Your task to perform on an android device: turn on improve location accuracy Image 0: 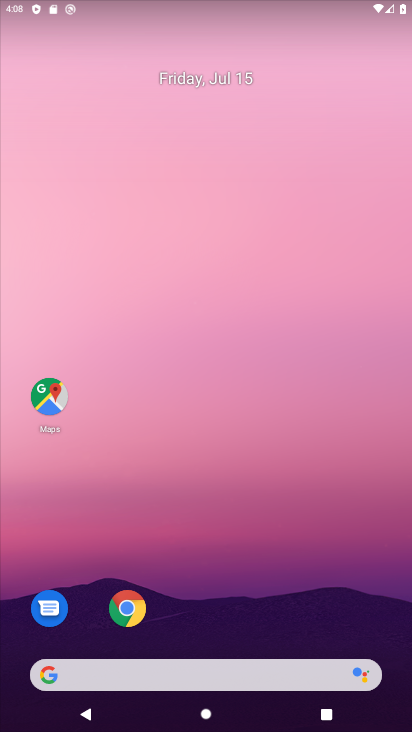
Step 0: drag from (250, 428) to (299, 177)
Your task to perform on an android device: turn on improve location accuracy Image 1: 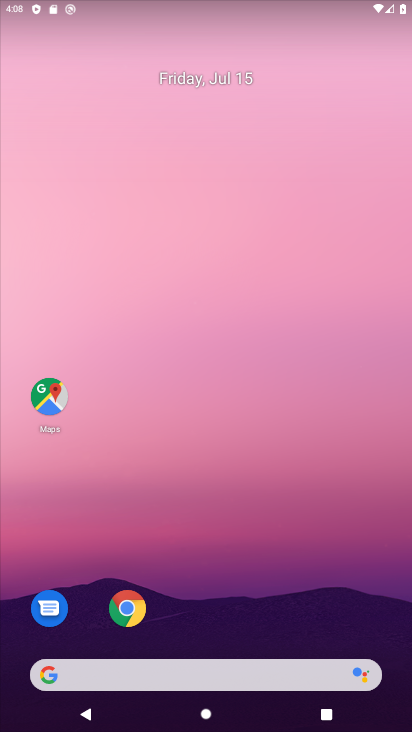
Step 1: drag from (190, 393) to (211, 267)
Your task to perform on an android device: turn on improve location accuracy Image 2: 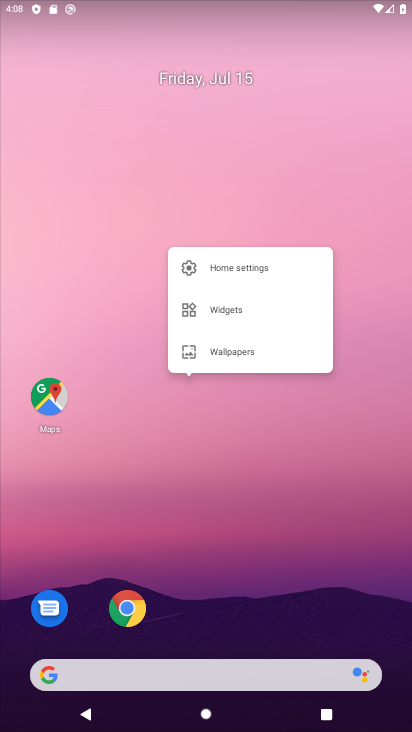
Step 2: drag from (279, 128) to (277, 10)
Your task to perform on an android device: turn on improve location accuracy Image 3: 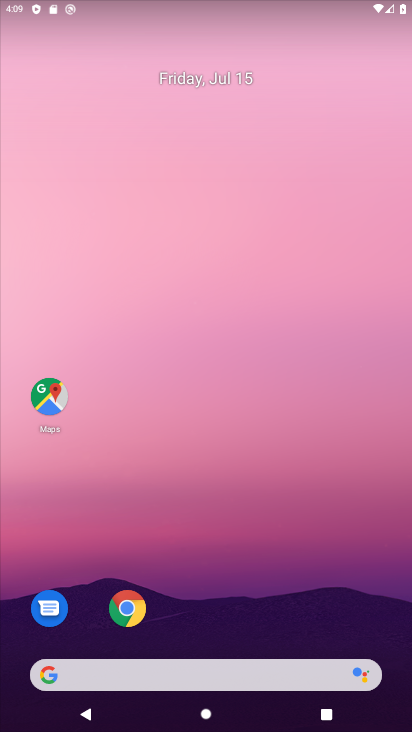
Step 3: drag from (235, 647) to (145, 1)
Your task to perform on an android device: turn on improve location accuracy Image 4: 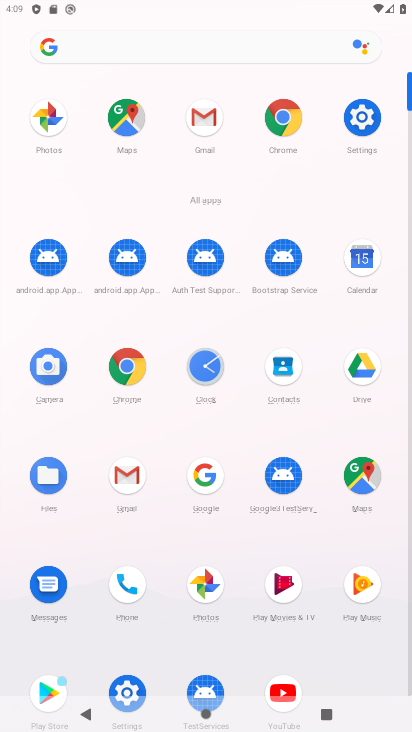
Step 4: click (131, 685)
Your task to perform on an android device: turn on improve location accuracy Image 5: 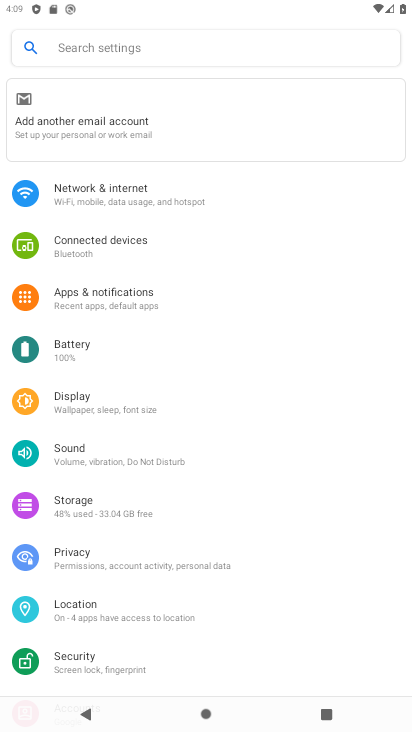
Step 5: click (105, 620)
Your task to perform on an android device: turn on improve location accuracy Image 6: 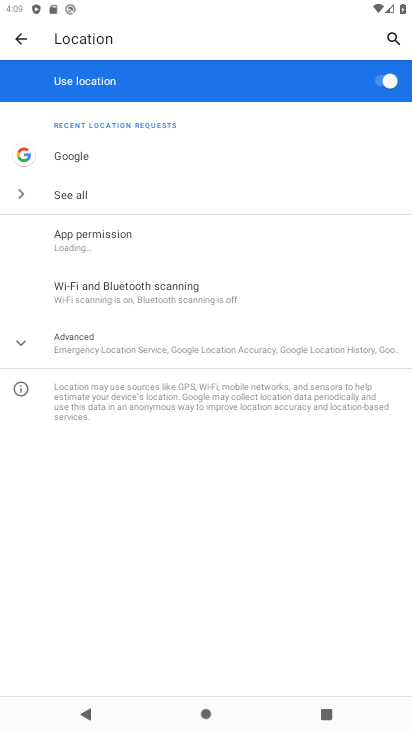
Step 6: click (187, 351)
Your task to perform on an android device: turn on improve location accuracy Image 7: 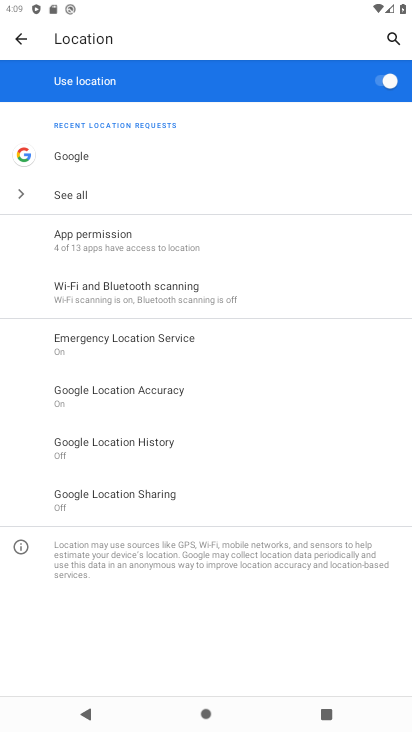
Step 7: click (171, 414)
Your task to perform on an android device: turn on improve location accuracy Image 8: 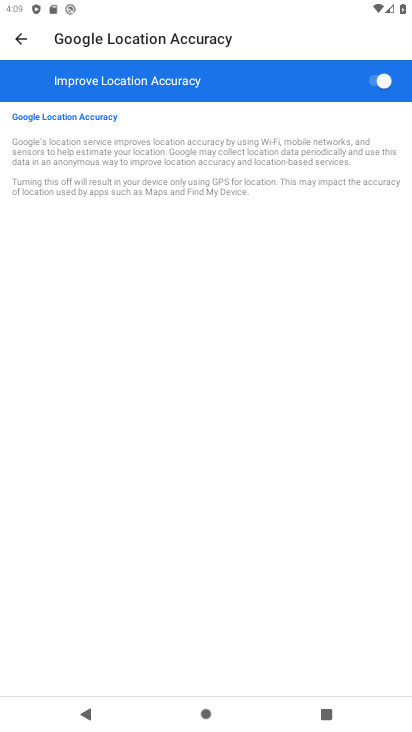
Step 8: task complete